Your task to perform on an android device: open app "Google Chat" (install if not already installed) Image 0: 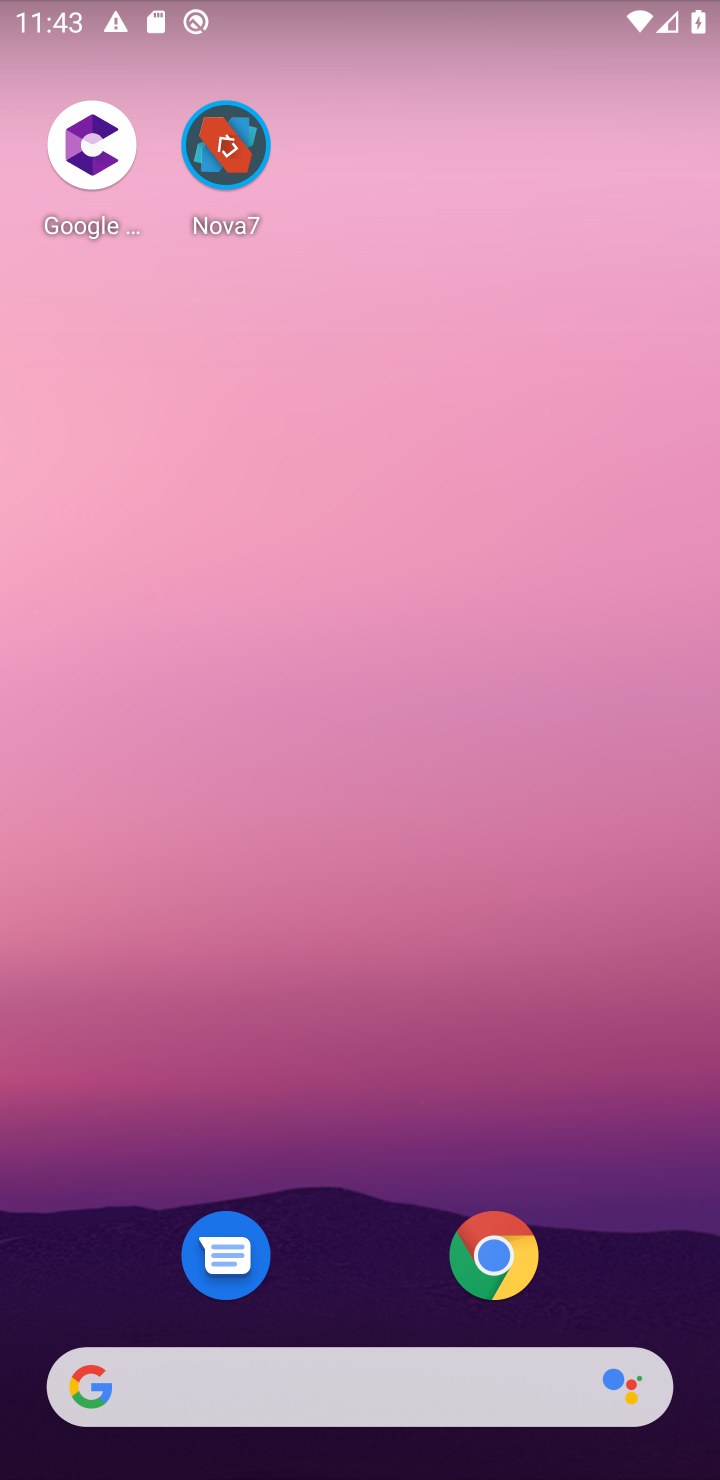
Step 0: drag from (396, 1185) to (405, 359)
Your task to perform on an android device: open app "Google Chat" (install if not already installed) Image 1: 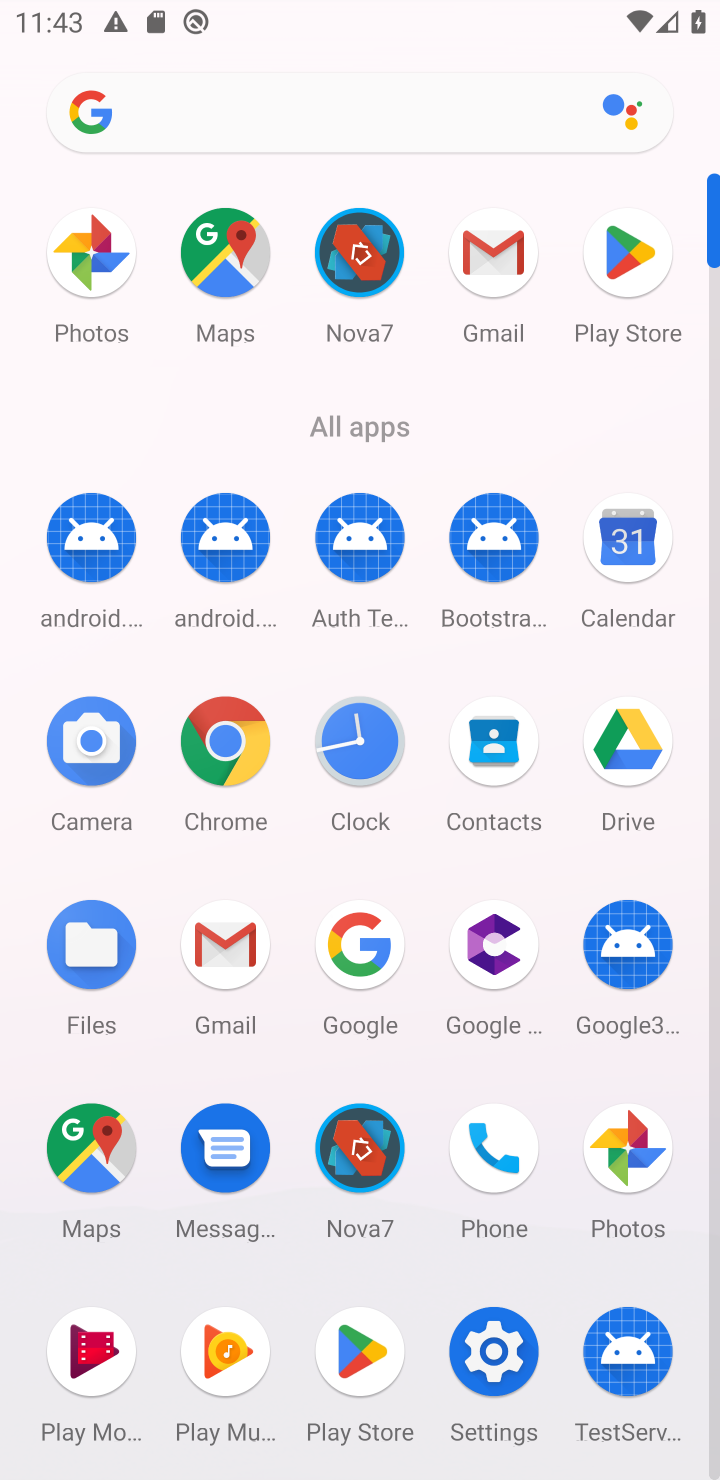
Step 1: click (338, 1344)
Your task to perform on an android device: open app "Google Chat" (install if not already installed) Image 2: 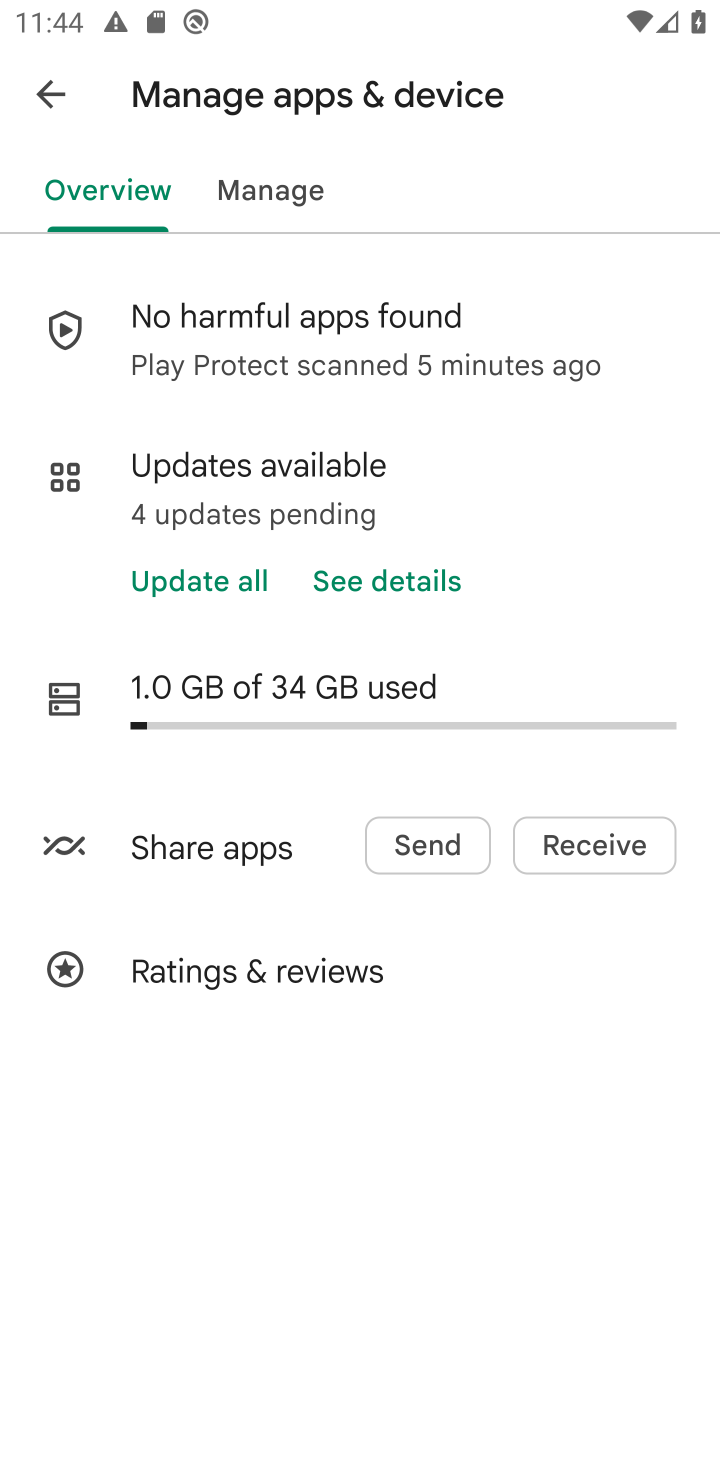
Step 2: click (65, 90)
Your task to perform on an android device: open app "Google Chat" (install if not already installed) Image 3: 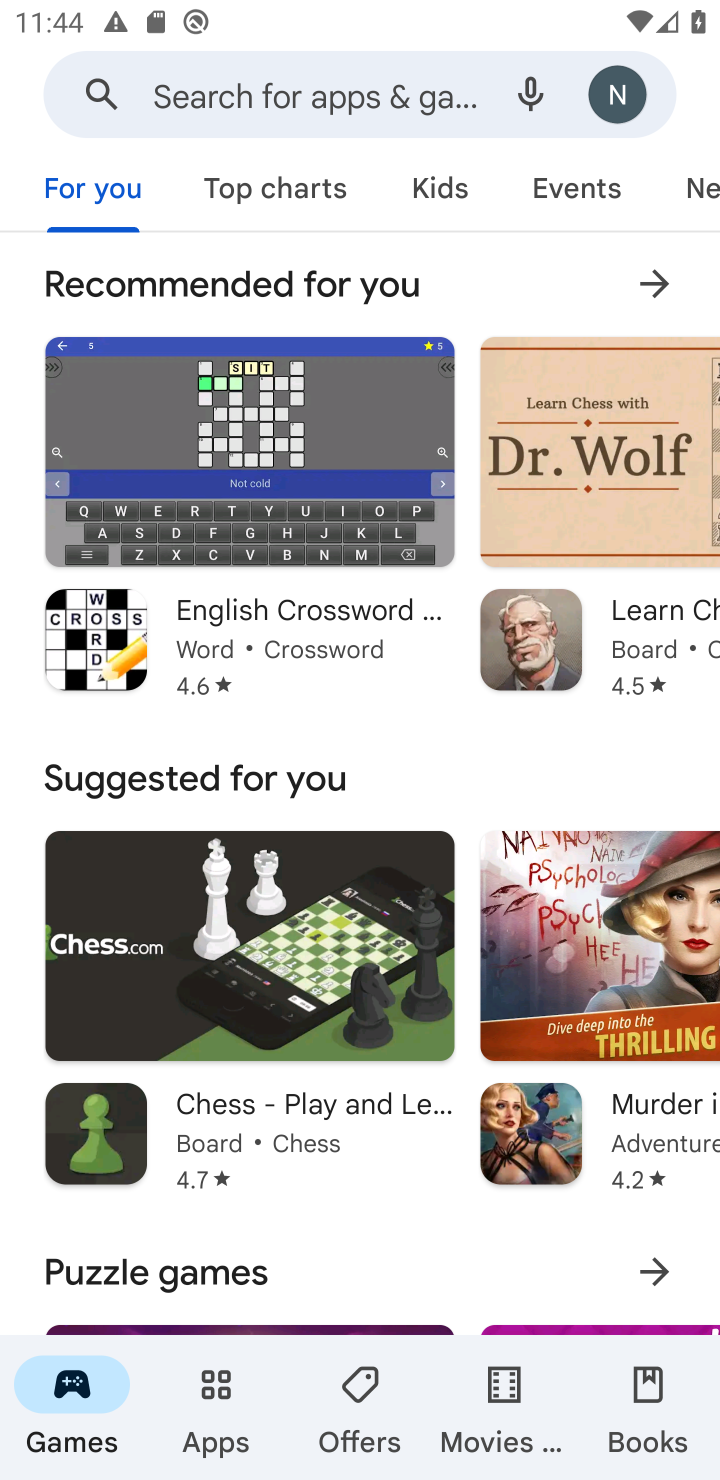
Step 3: click (397, 88)
Your task to perform on an android device: open app "Google Chat" (install if not already installed) Image 4: 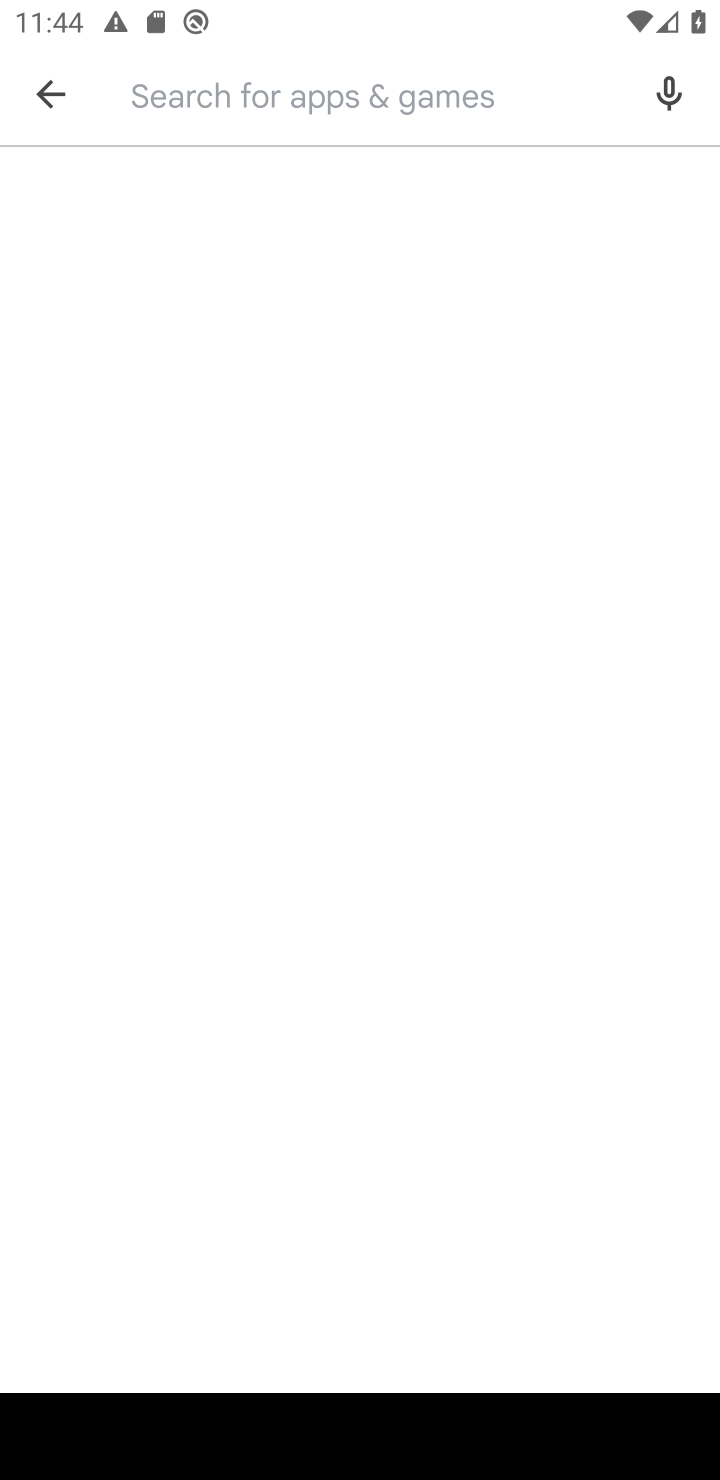
Step 4: type "google chat"
Your task to perform on an android device: open app "Google Chat" (install if not already installed) Image 5: 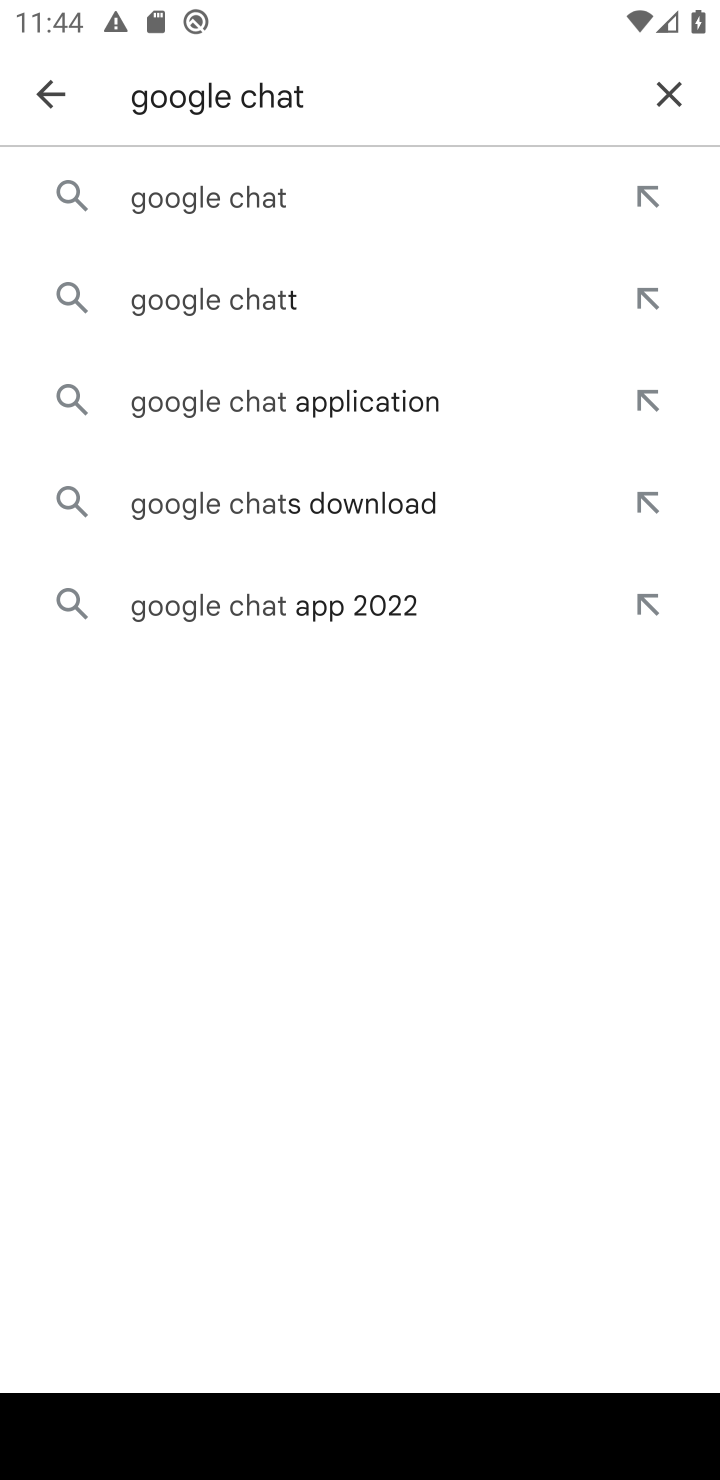
Step 5: click (329, 201)
Your task to perform on an android device: open app "Google Chat" (install if not already installed) Image 6: 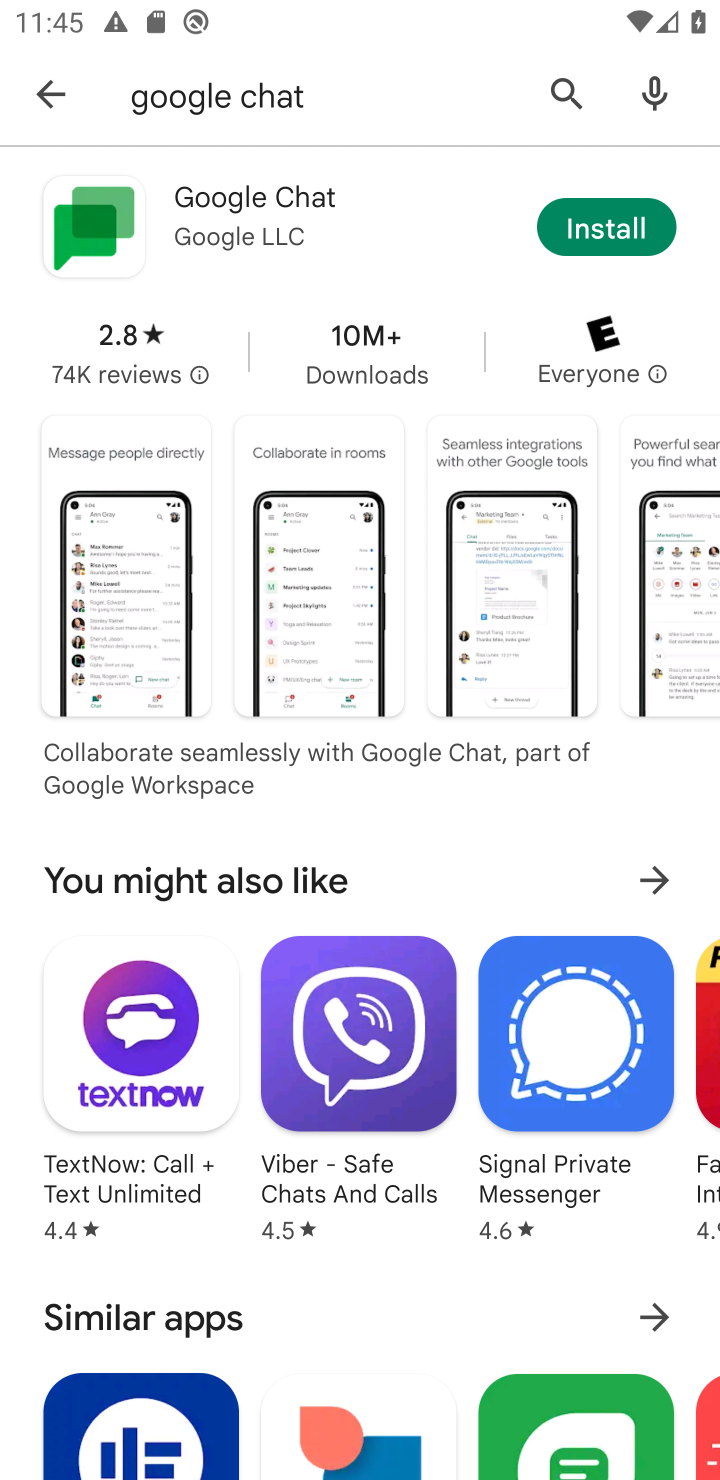
Step 6: click (630, 235)
Your task to perform on an android device: open app "Google Chat" (install if not already installed) Image 7: 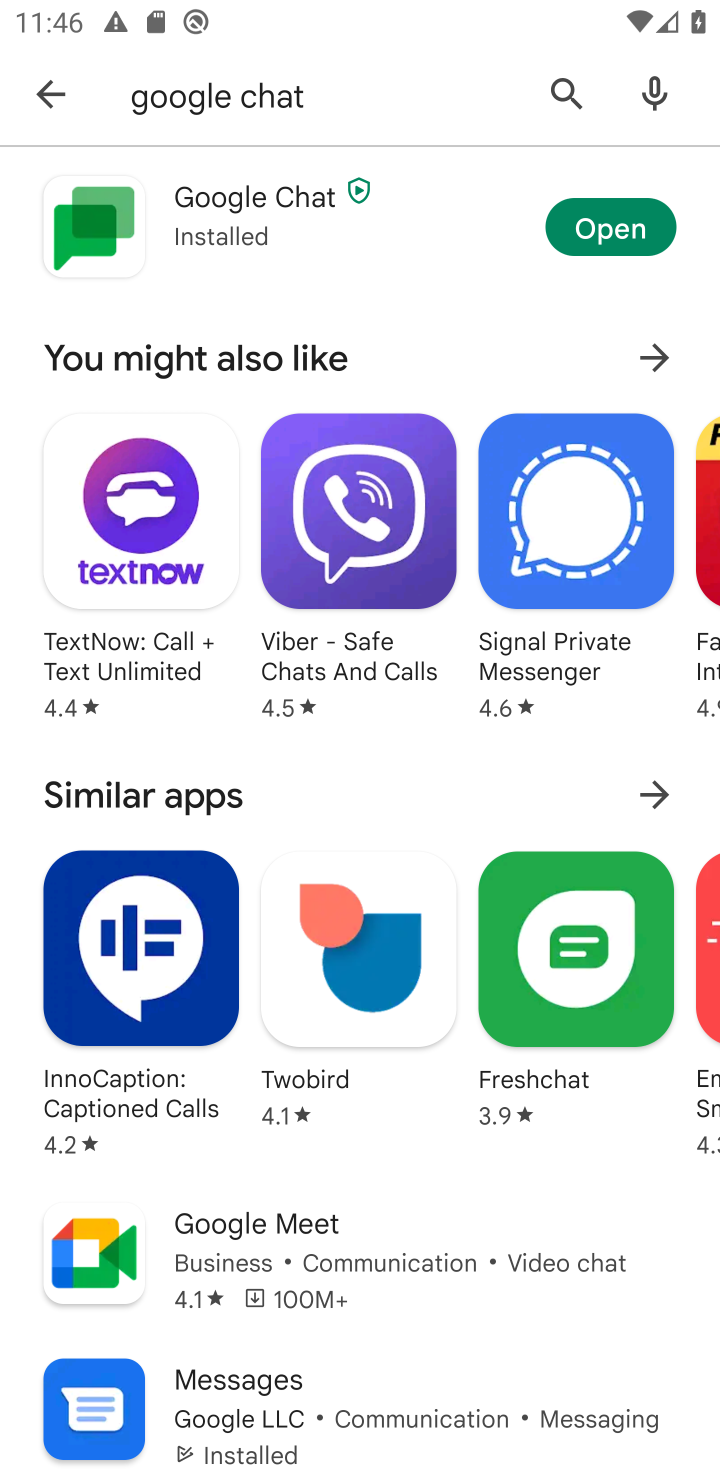
Step 7: click (593, 230)
Your task to perform on an android device: open app "Google Chat" (install if not already installed) Image 8: 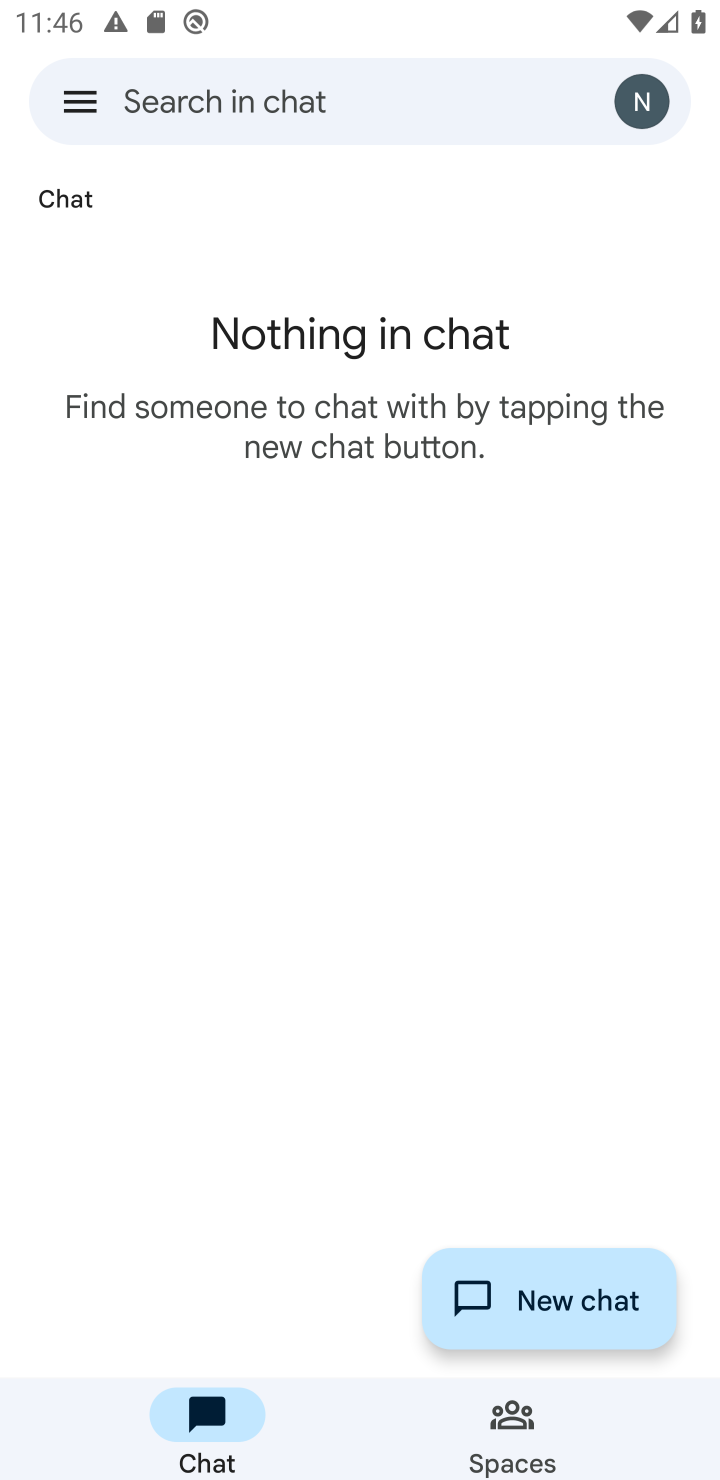
Step 8: task complete